Your task to perform on an android device: check android version Image 0: 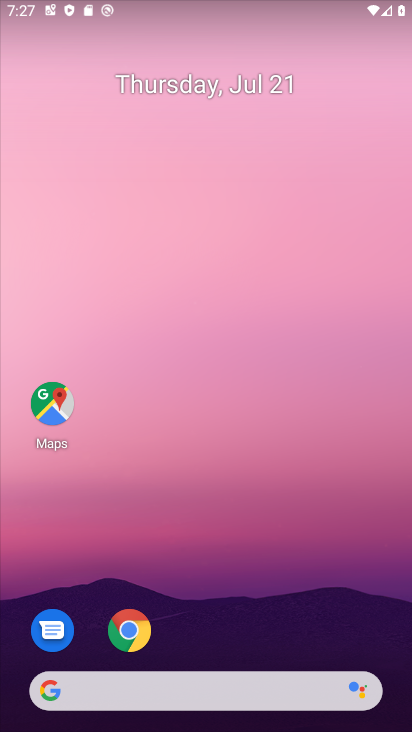
Step 0: drag from (73, 726) to (40, 149)
Your task to perform on an android device: check android version Image 1: 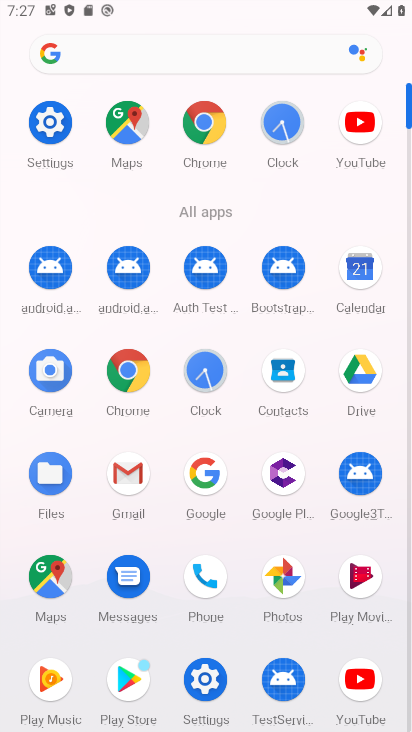
Step 1: click (54, 136)
Your task to perform on an android device: check android version Image 2: 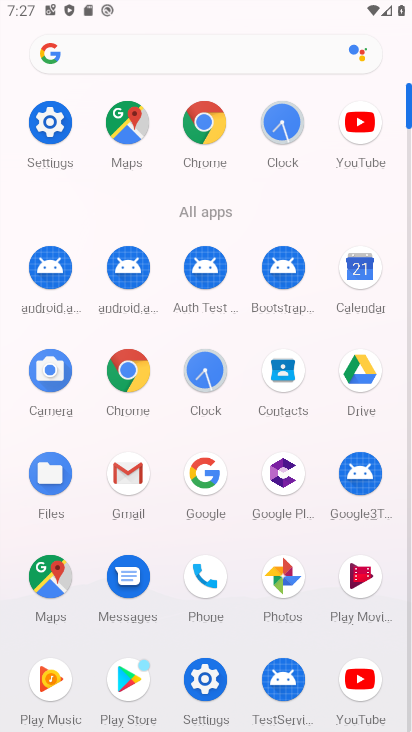
Step 2: click (54, 136)
Your task to perform on an android device: check android version Image 3: 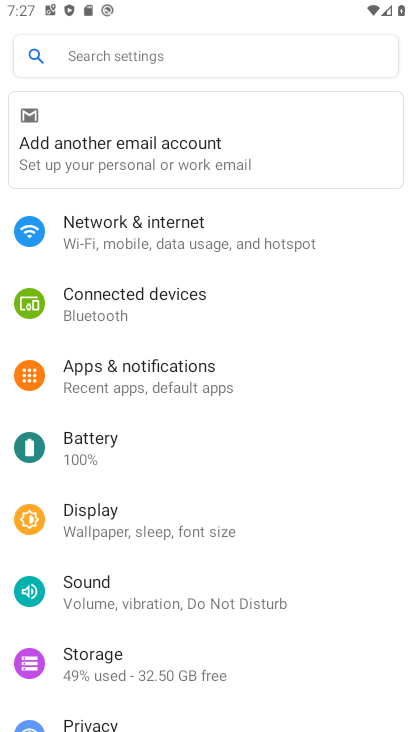
Step 3: drag from (226, 471) to (109, 15)
Your task to perform on an android device: check android version Image 4: 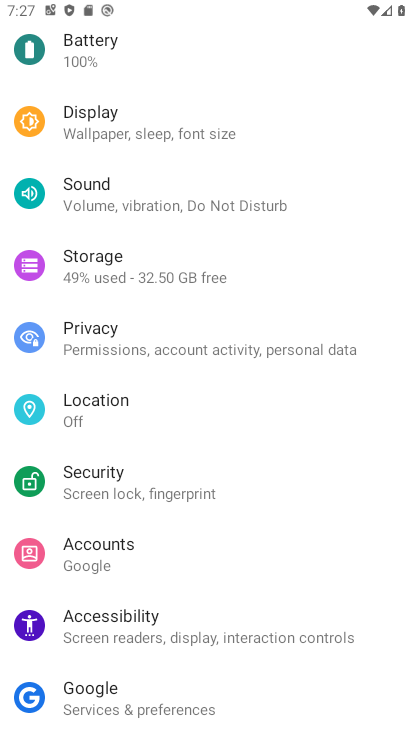
Step 4: drag from (189, 692) to (163, 108)
Your task to perform on an android device: check android version Image 5: 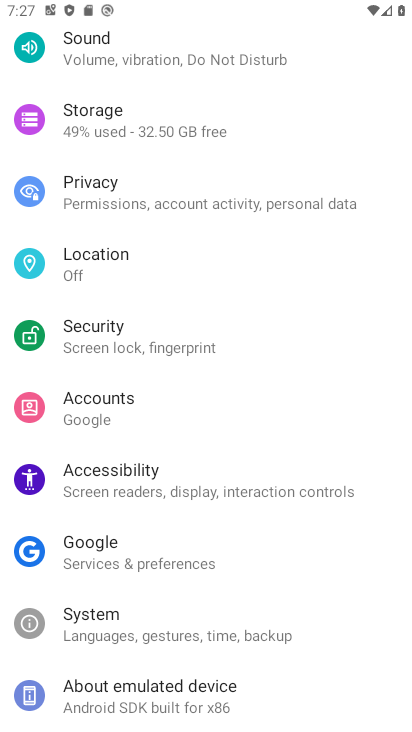
Step 5: drag from (277, 651) to (349, 213)
Your task to perform on an android device: check android version Image 6: 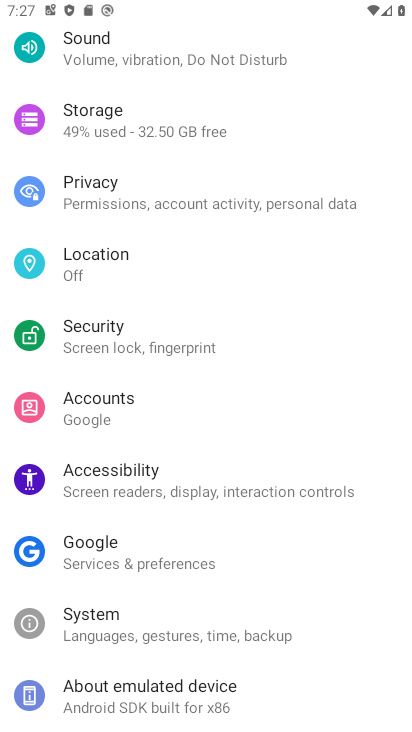
Step 6: click (190, 690)
Your task to perform on an android device: check android version Image 7: 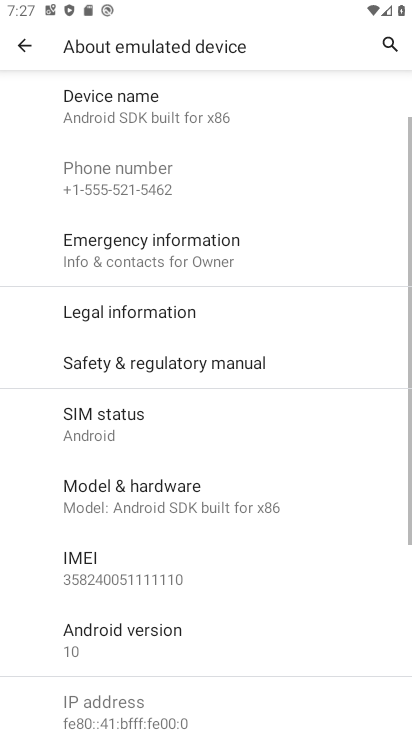
Step 7: task complete